Your task to perform on an android device: Open settings Image 0: 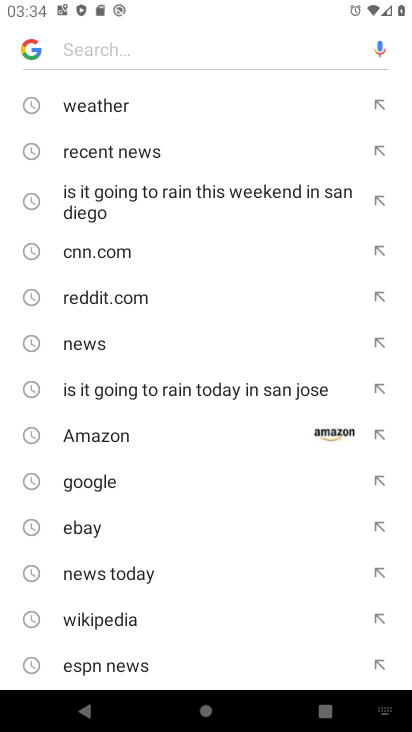
Step 0: press home button
Your task to perform on an android device: Open settings Image 1: 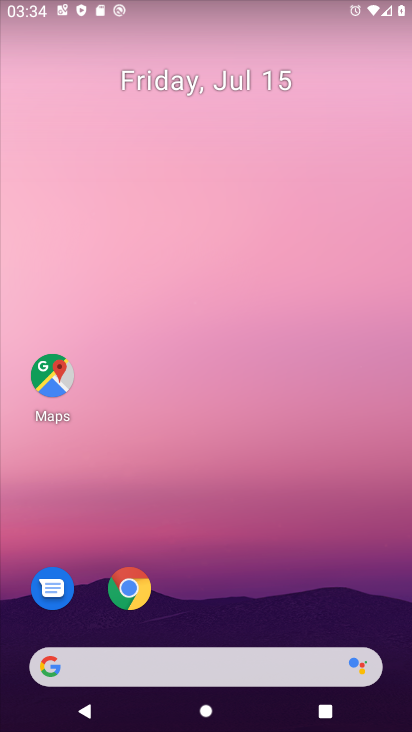
Step 1: drag from (218, 659) to (189, 102)
Your task to perform on an android device: Open settings Image 2: 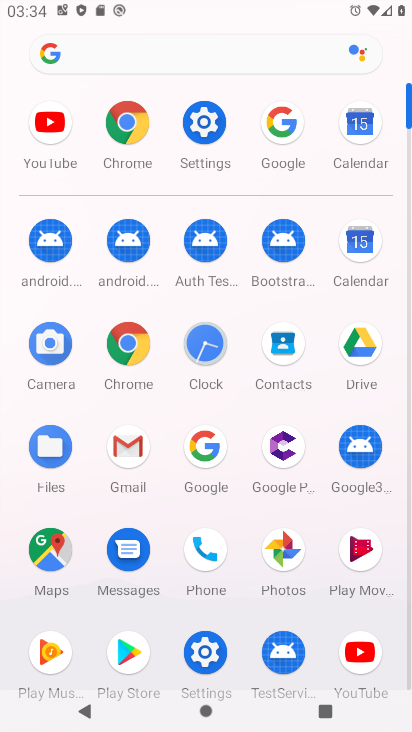
Step 2: click (204, 121)
Your task to perform on an android device: Open settings Image 3: 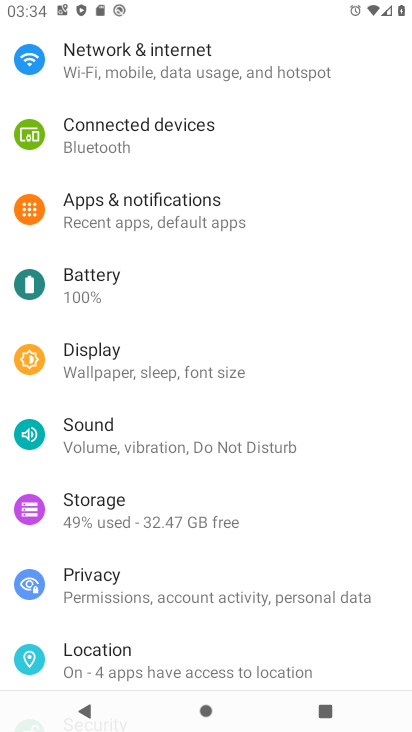
Step 3: task complete